Your task to perform on an android device: open app "Pandora - Music & Podcasts" (install if not already installed) and go to login screen Image 0: 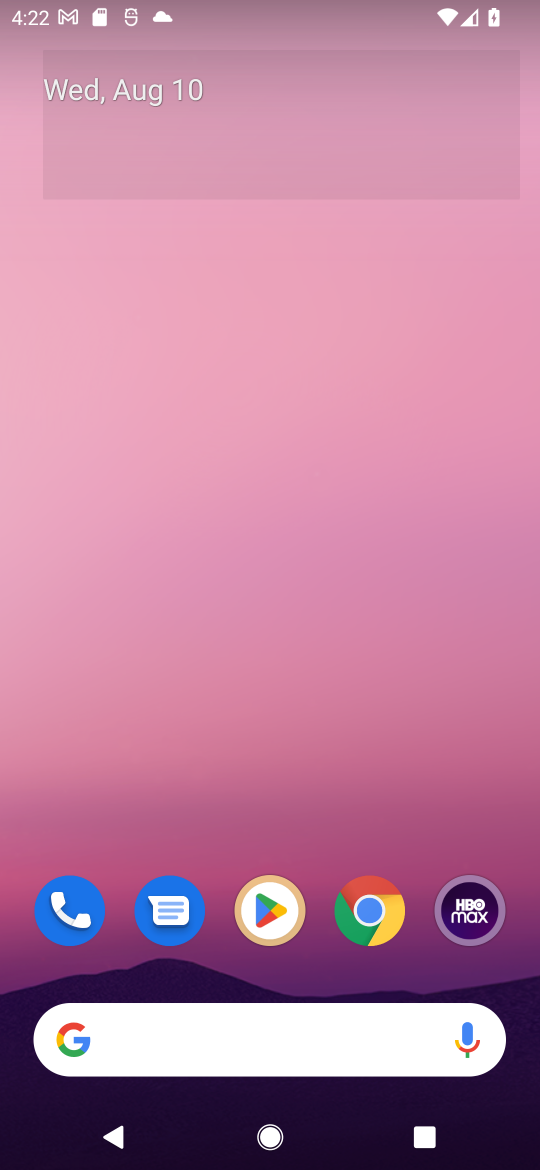
Step 0: click (283, 903)
Your task to perform on an android device: open app "Pandora - Music & Podcasts" (install if not already installed) and go to login screen Image 1: 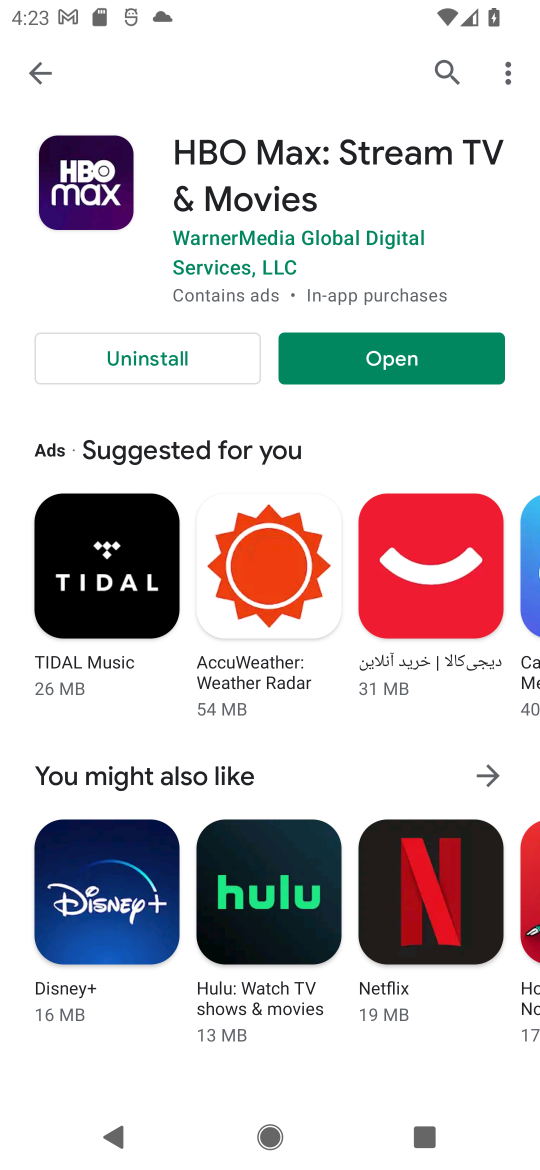
Step 1: click (449, 85)
Your task to perform on an android device: open app "Pandora - Music & Podcasts" (install if not already installed) and go to login screen Image 2: 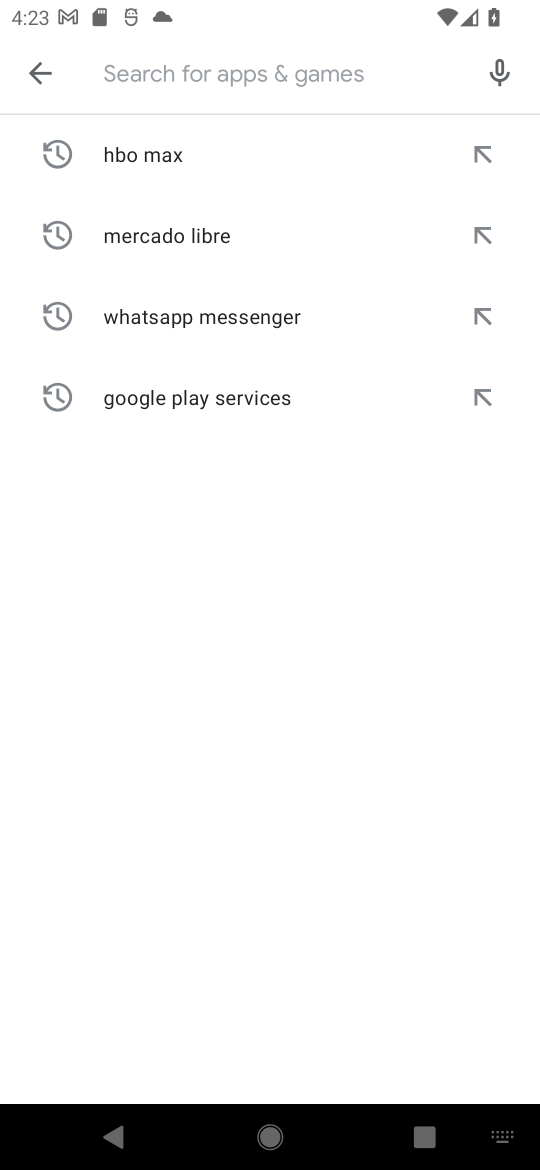
Step 2: click (255, 55)
Your task to perform on an android device: open app "Pandora - Music & Podcasts" (install if not already installed) and go to login screen Image 3: 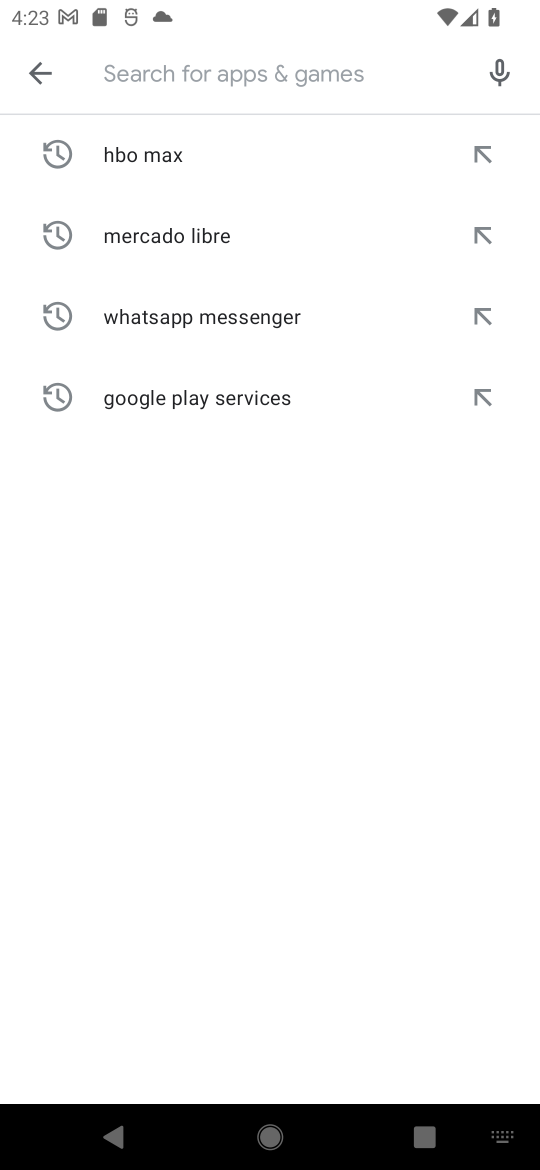
Step 3: type "pandora"
Your task to perform on an android device: open app "Pandora - Music & Podcasts" (install if not already installed) and go to login screen Image 4: 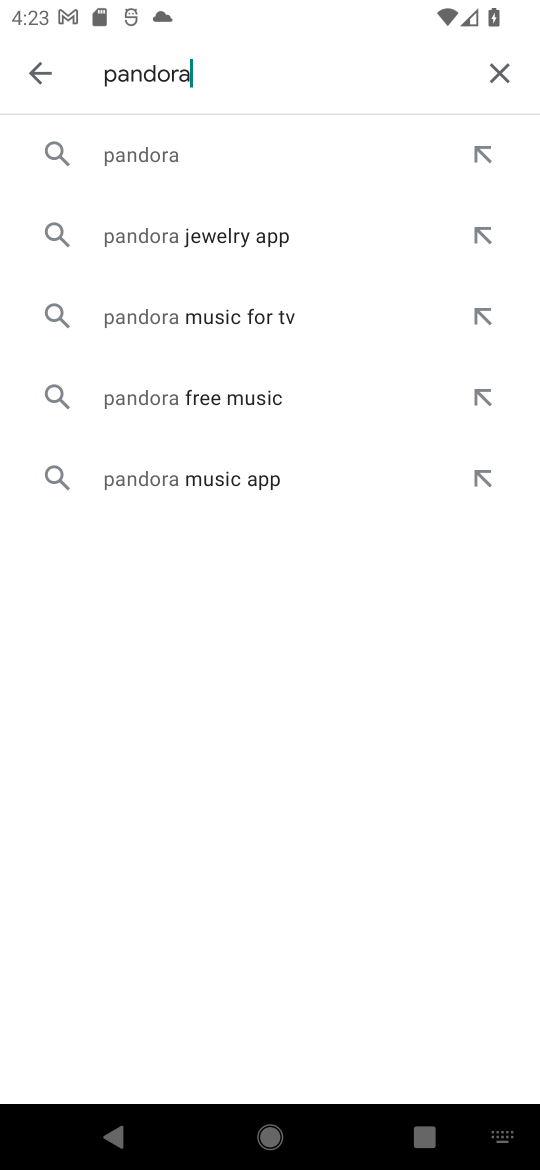
Step 4: click (185, 150)
Your task to perform on an android device: open app "Pandora - Music & Podcasts" (install if not already installed) and go to login screen Image 5: 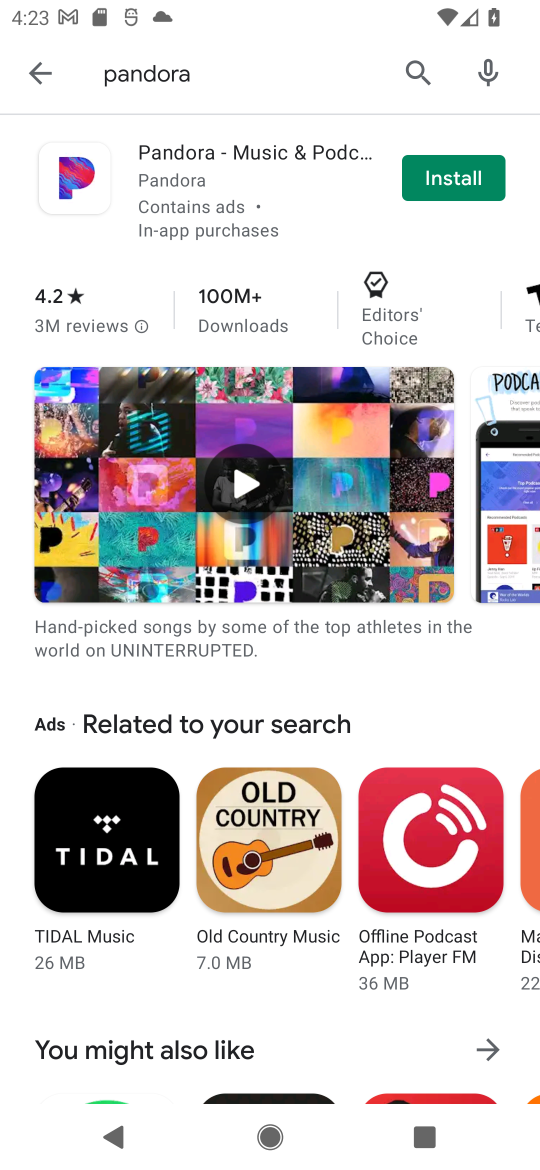
Step 5: click (433, 184)
Your task to perform on an android device: open app "Pandora - Music & Podcasts" (install if not already installed) and go to login screen Image 6: 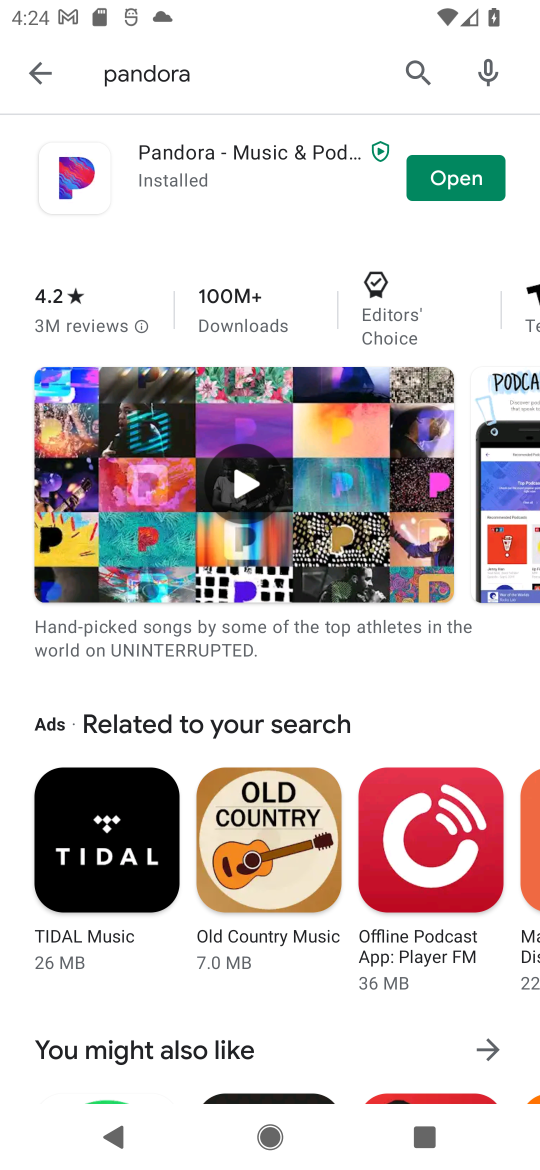
Step 6: click (447, 167)
Your task to perform on an android device: open app "Pandora - Music & Podcasts" (install if not already installed) and go to login screen Image 7: 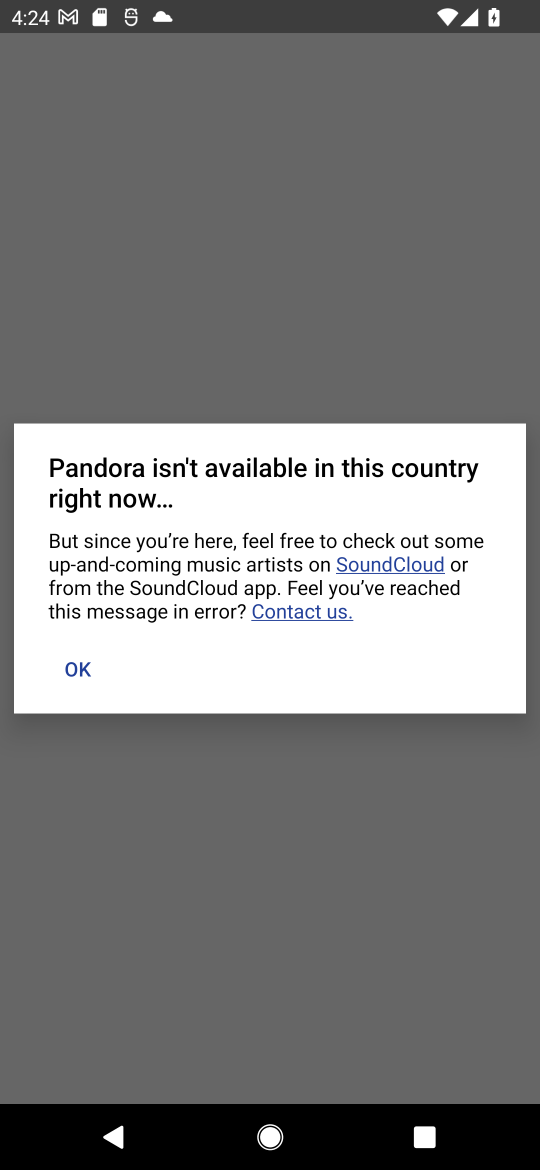
Step 7: click (82, 679)
Your task to perform on an android device: open app "Pandora - Music & Podcasts" (install if not already installed) and go to login screen Image 8: 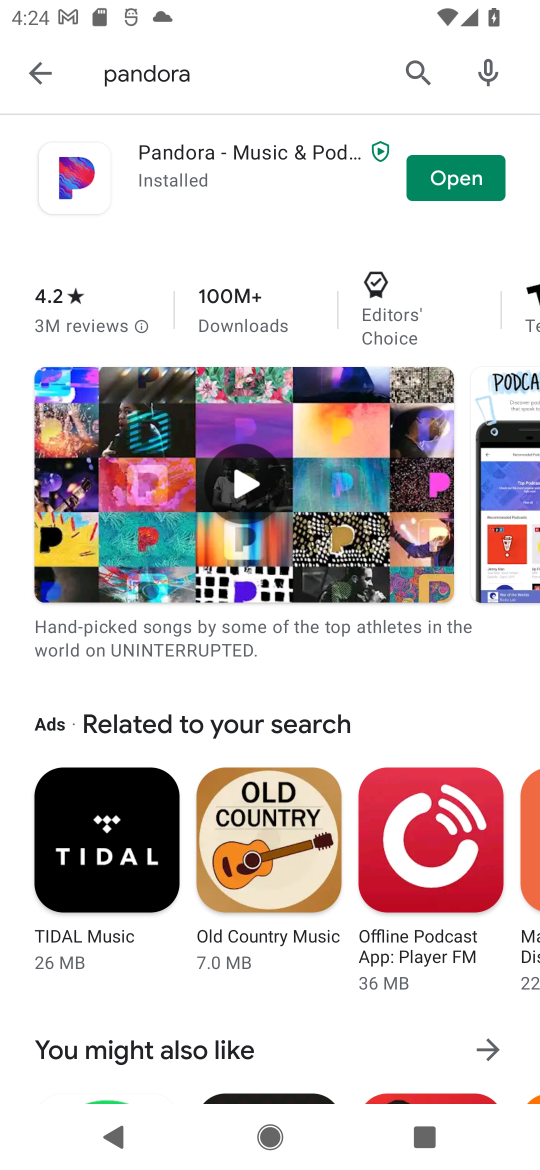
Step 8: task complete